Your task to perform on an android device: Open the calendar app, open the side menu, and click the "Day" option Image 0: 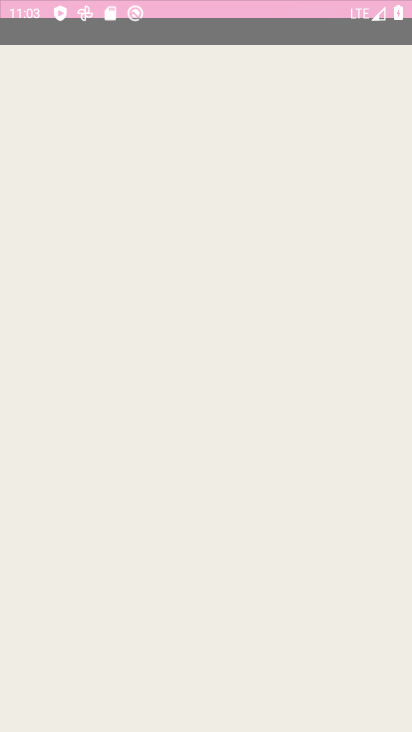
Step 0: click (193, 239)
Your task to perform on an android device: Open the calendar app, open the side menu, and click the "Day" option Image 1: 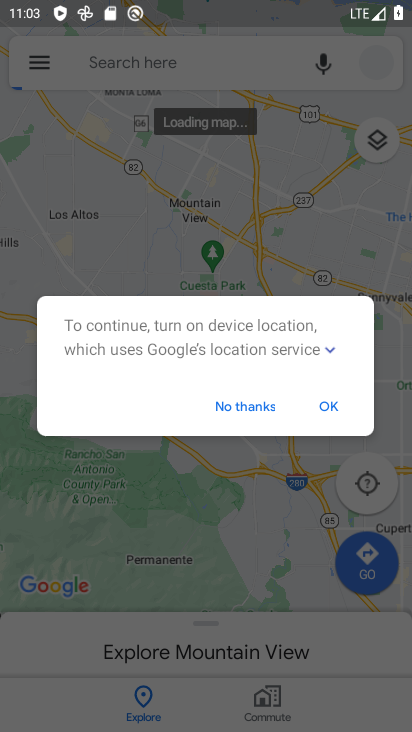
Step 1: press home button
Your task to perform on an android device: Open the calendar app, open the side menu, and click the "Day" option Image 2: 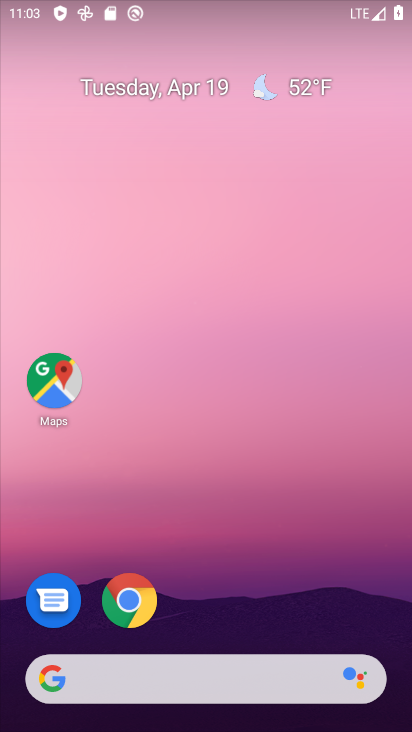
Step 2: drag from (268, 622) to (211, 57)
Your task to perform on an android device: Open the calendar app, open the side menu, and click the "Day" option Image 3: 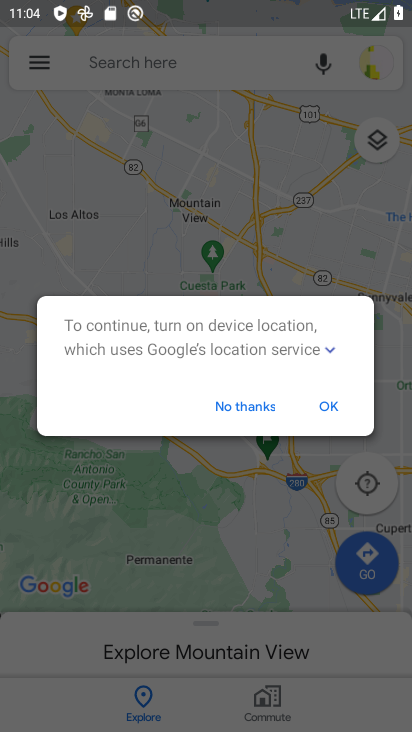
Step 3: press home button
Your task to perform on an android device: Open the calendar app, open the side menu, and click the "Day" option Image 4: 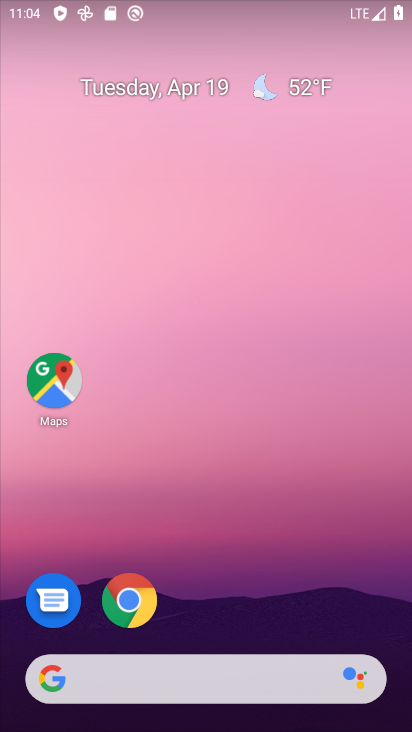
Step 4: drag from (270, 515) to (151, 110)
Your task to perform on an android device: Open the calendar app, open the side menu, and click the "Day" option Image 5: 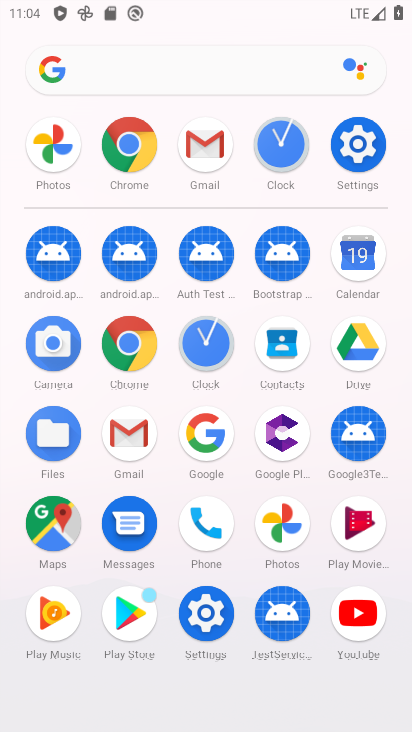
Step 5: click (354, 263)
Your task to perform on an android device: Open the calendar app, open the side menu, and click the "Day" option Image 6: 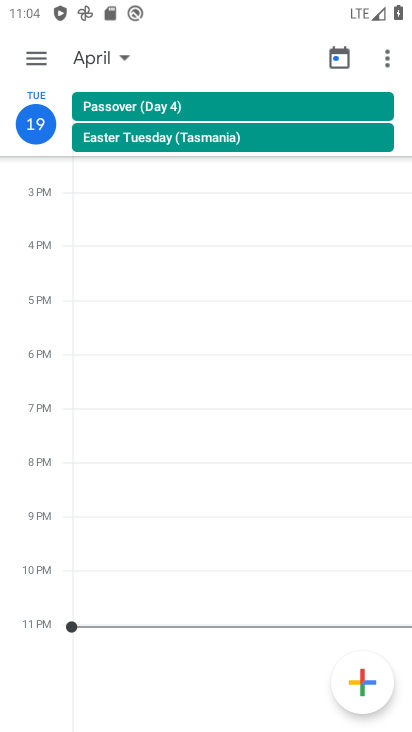
Step 6: click (29, 56)
Your task to perform on an android device: Open the calendar app, open the side menu, and click the "Day" option Image 7: 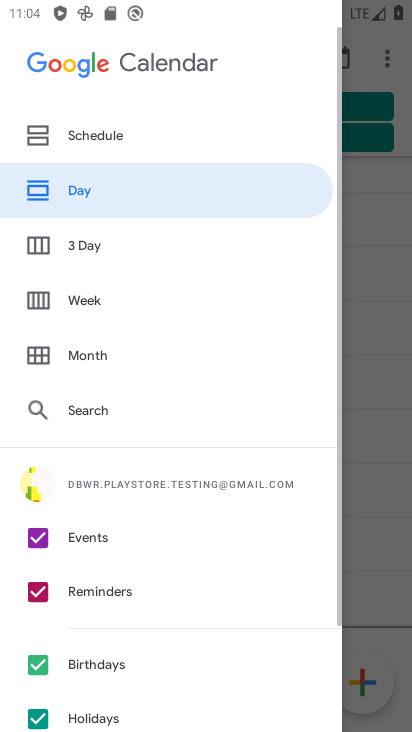
Step 7: task complete